Your task to perform on an android device: Clear all items from cart on walmart. Add lg ultragear to the cart on walmart, then select checkout. Image 0: 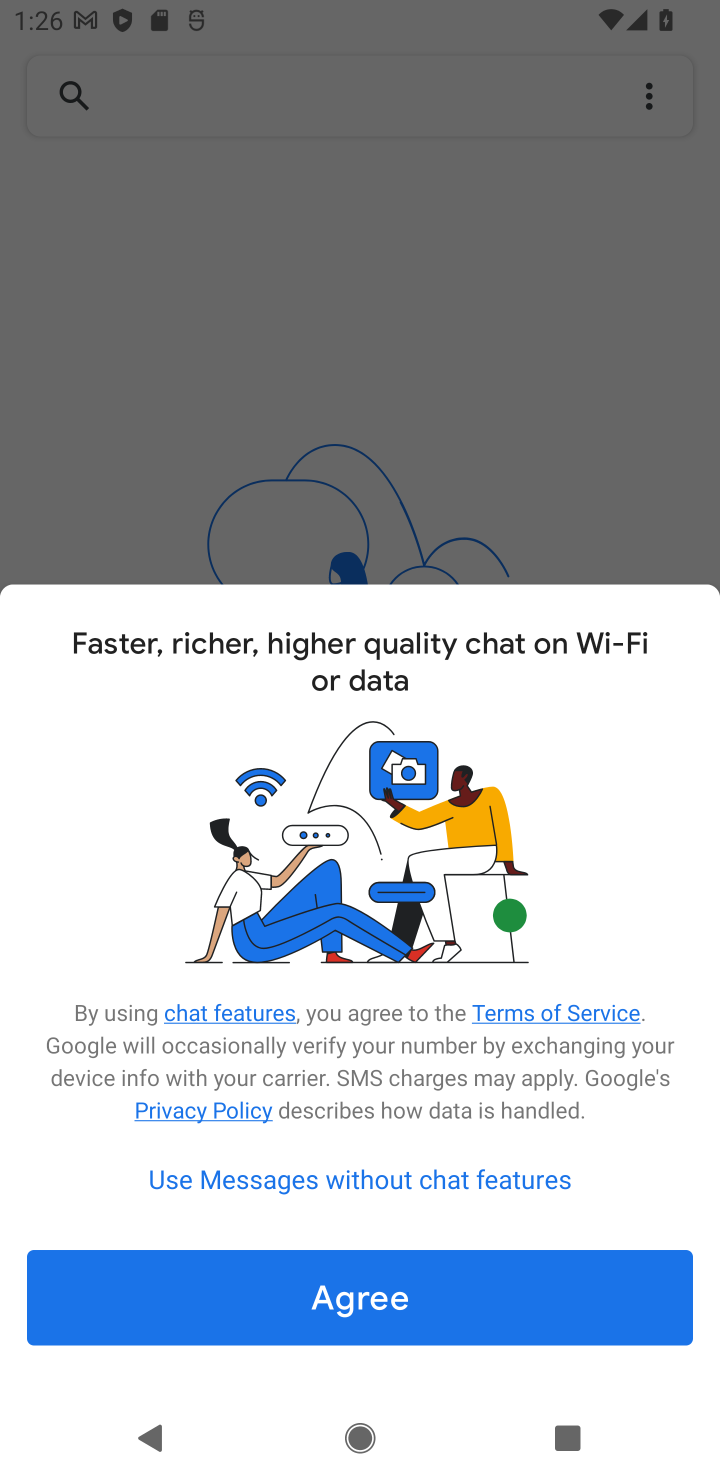
Step 0: press home button
Your task to perform on an android device: Clear all items from cart on walmart. Add lg ultragear to the cart on walmart, then select checkout. Image 1: 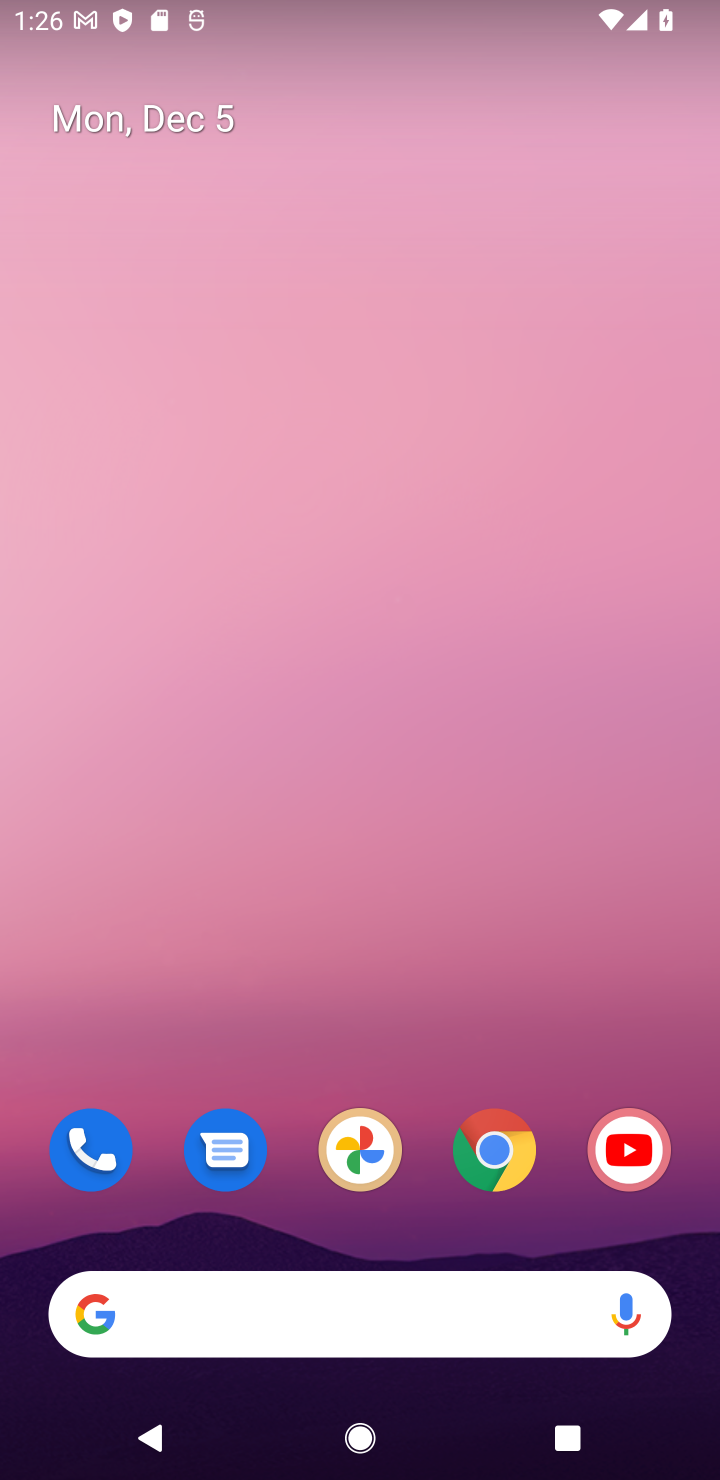
Step 1: click (481, 1146)
Your task to perform on an android device: Clear all items from cart on walmart. Add lg ultragear to the cart on walmart, then select checkout. Image 2: 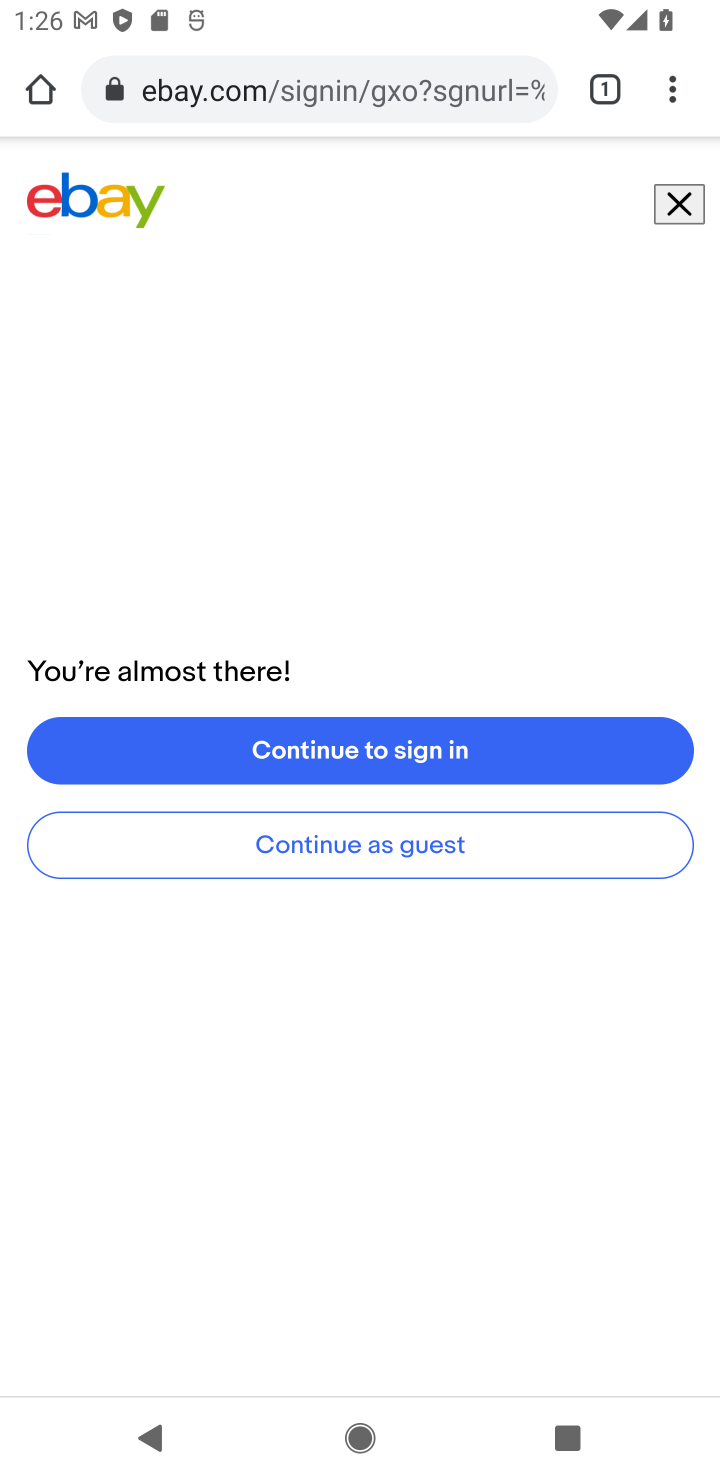
Step 2: click (431, 86)
Your task to perform on an android device: Clear all items from cart on walmart. Add lg ultragear to the cart on walmart, then select checkout. Image 3: 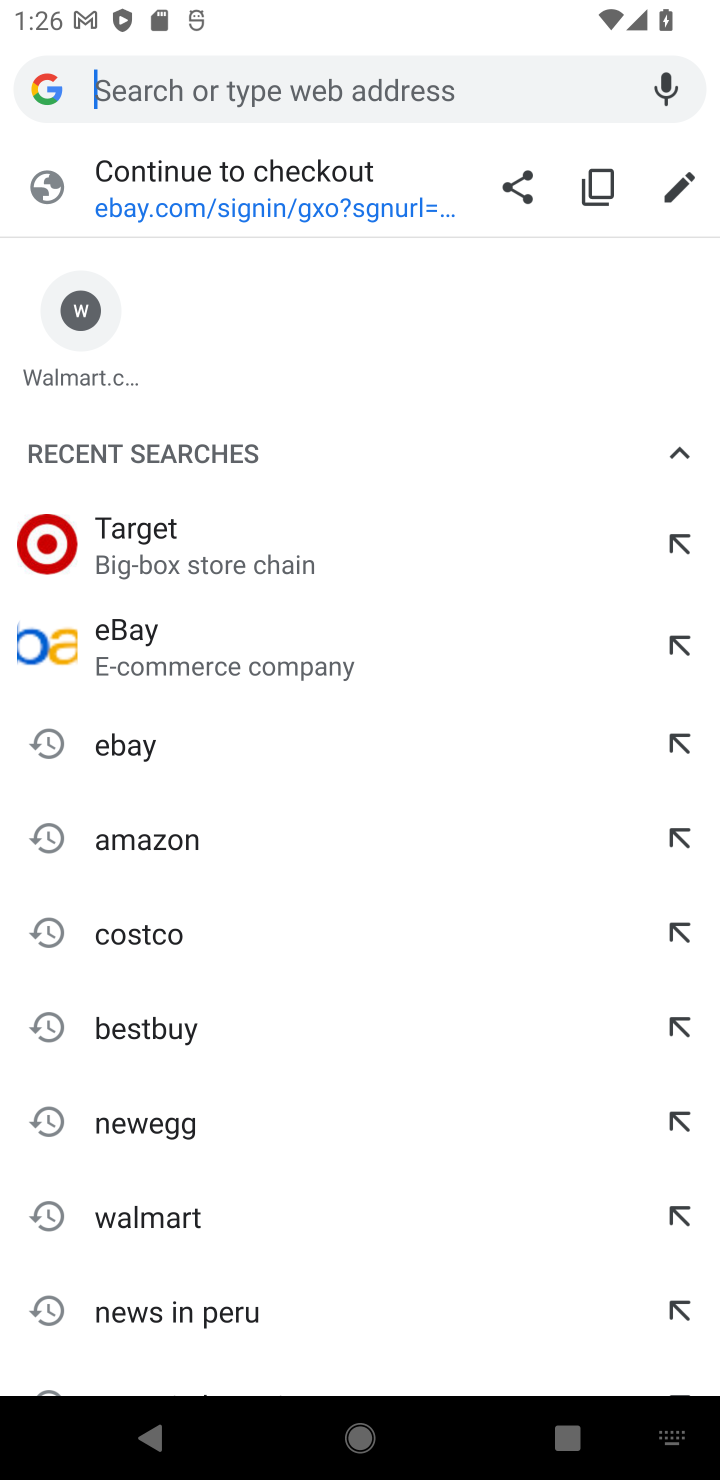
Step 3: drag from (387, 984) to (390, 688)
Your task to perform on an android device: Clear all items from cart on walmart. Add lg ultragear to the cart on walmart, then select checkout. Image 4: 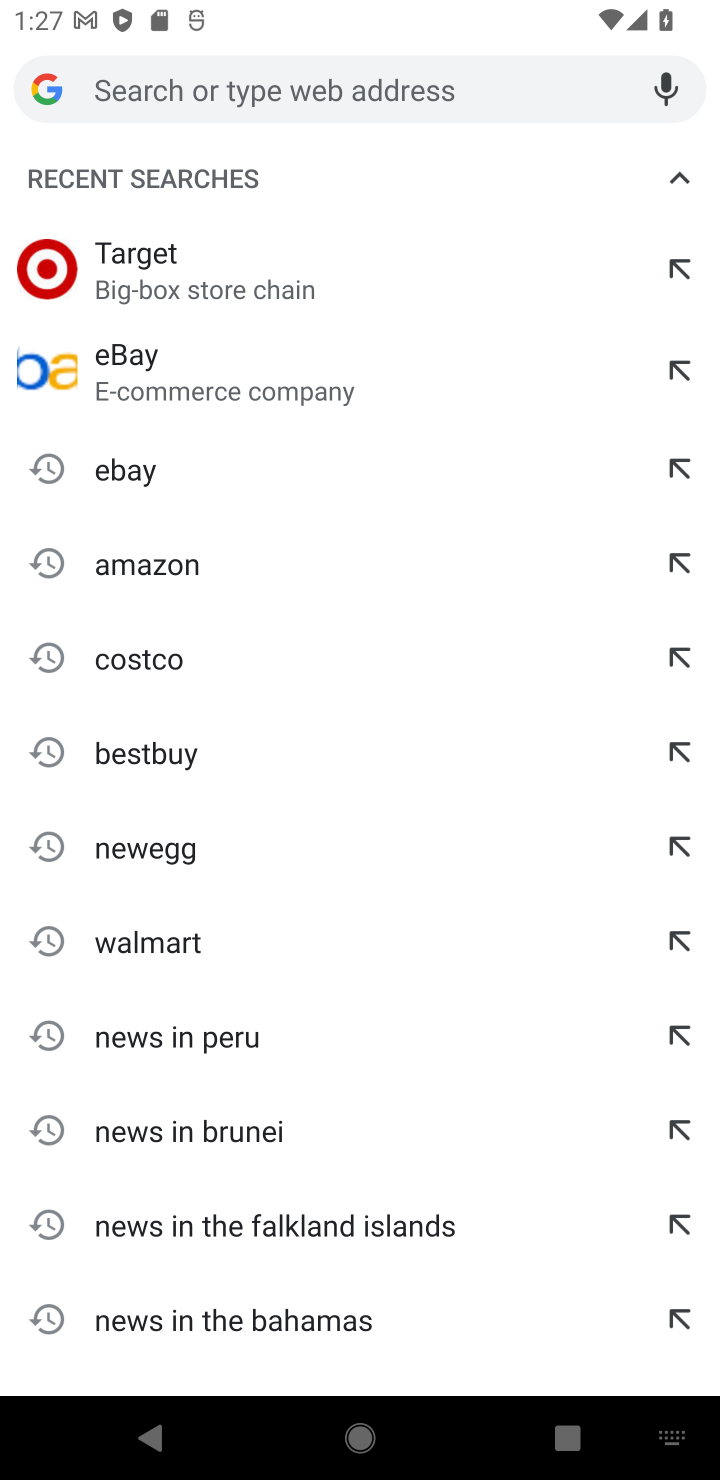
Step 4: click (139, 926)
Your task to perform on an android device: Clear all items from cart on walmart. Add lg ultragear to the cart on walmart, then select checkout. Image 5: 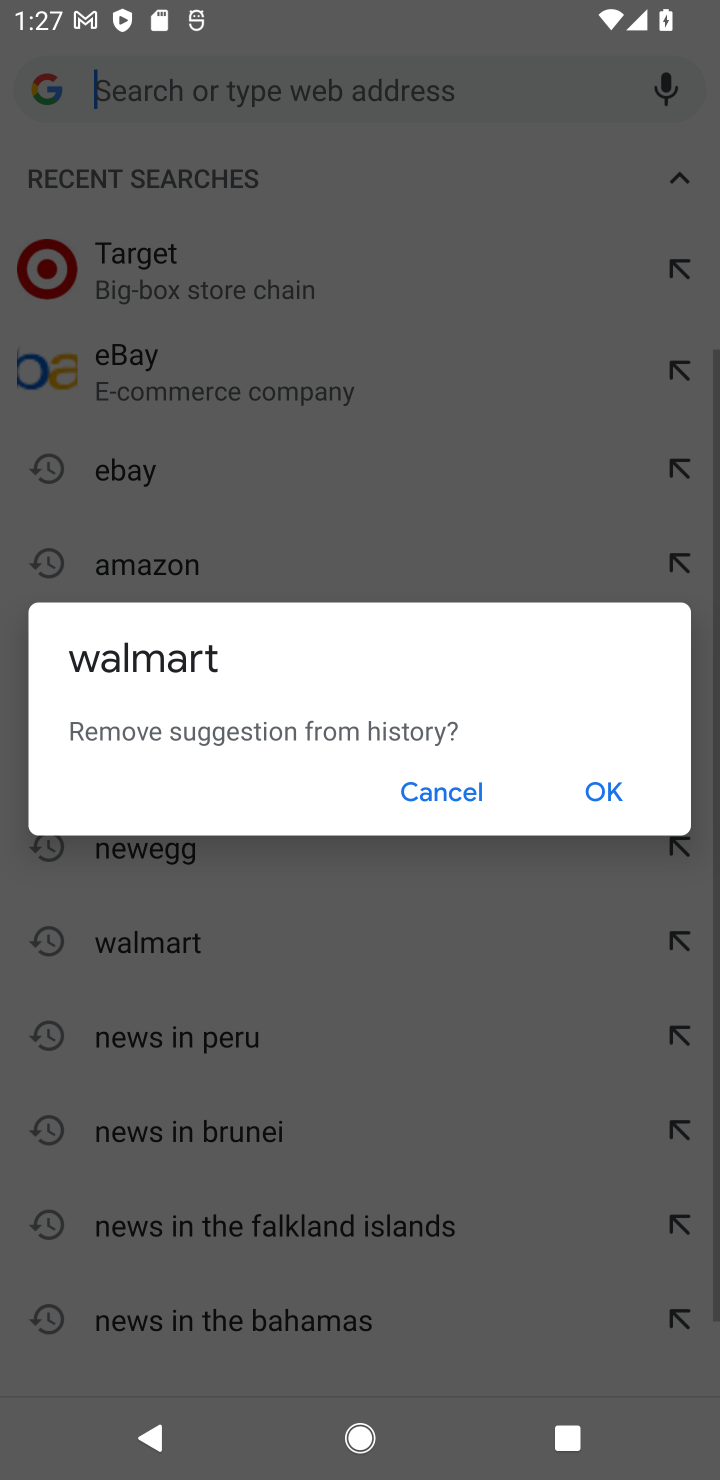
Step 5: click (617, 784)
Your task to perform on an android device: Clear all items from cart on walmart. Add lg ultragear to the cart on walmart, then select checkout. Image 6: 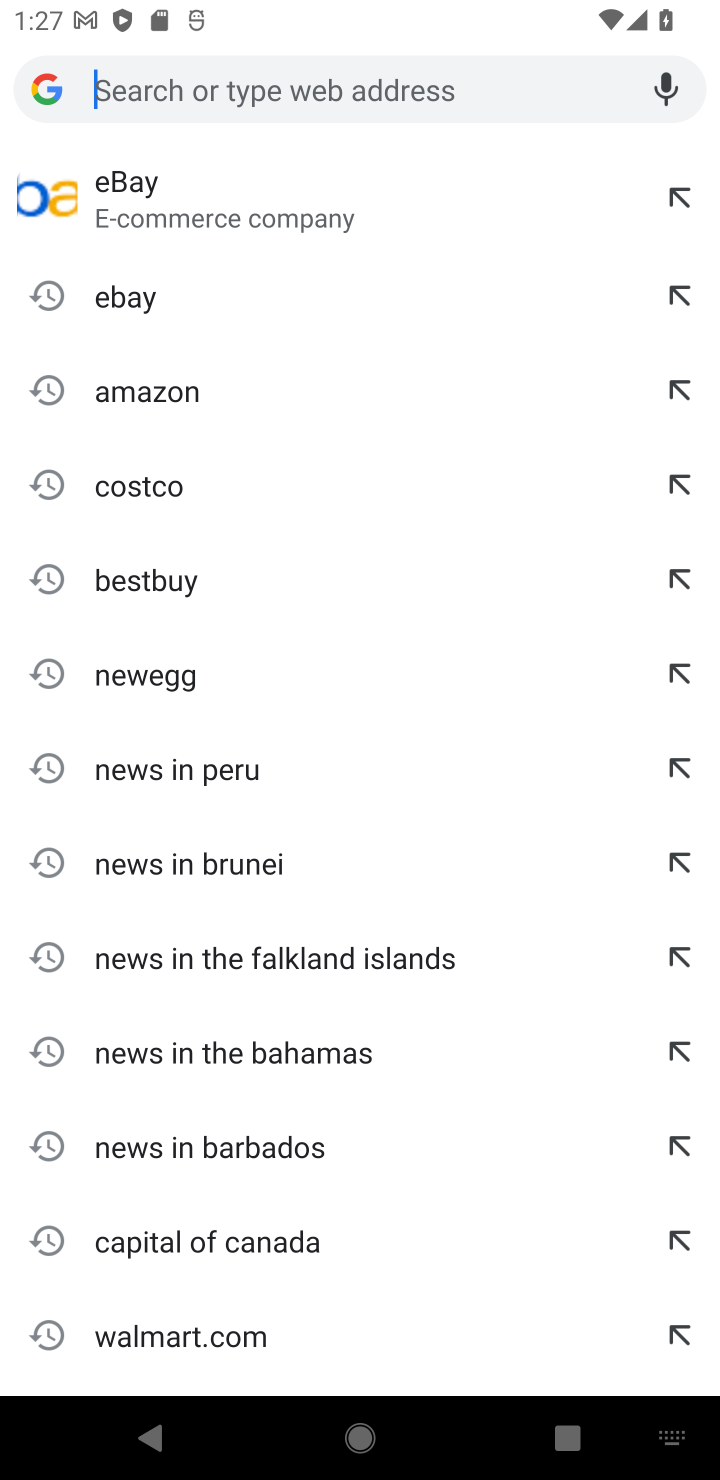
Step 6: type "walmart"
Your task to perform on an android device: Clear all items from cart on walmart. Add lg ultragear to the cart on walmart, then select checkout. Image 7: 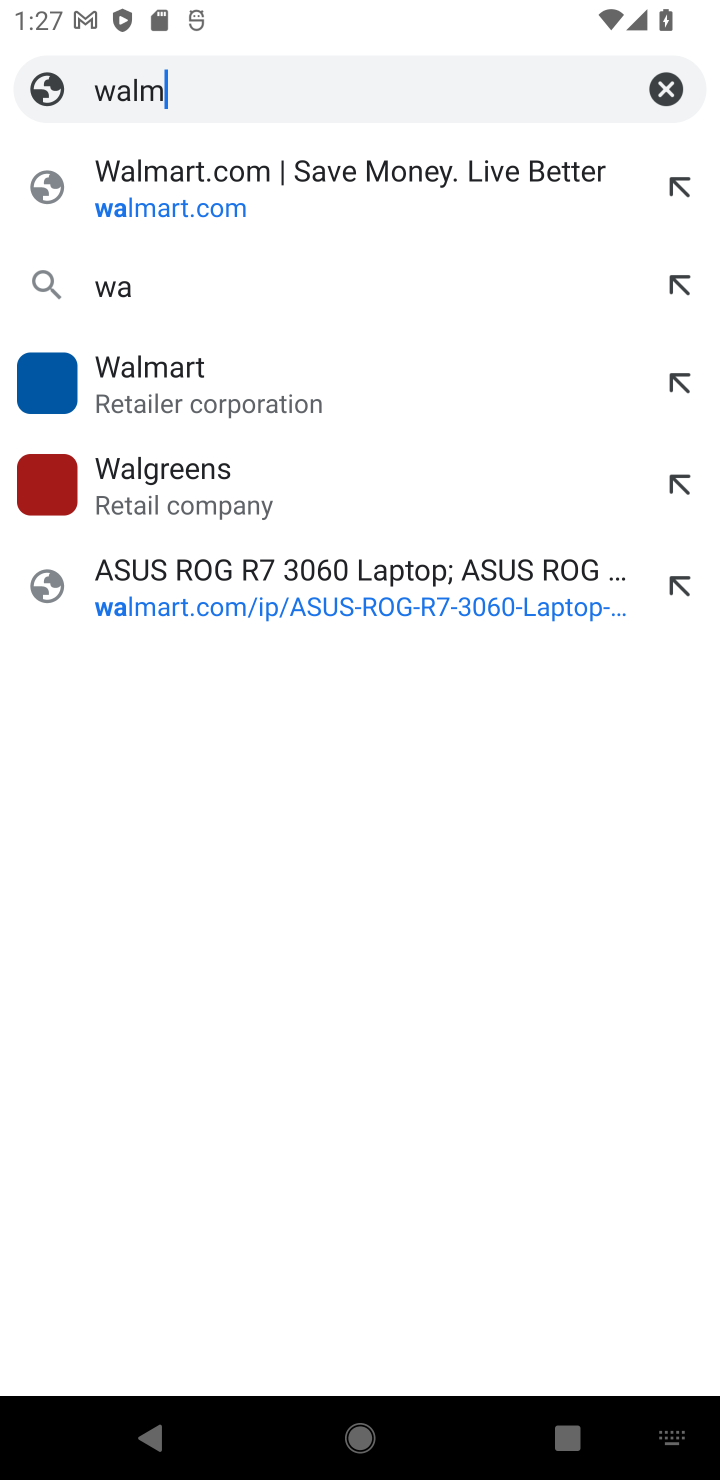
Step 7: press enter
Your task to perform on an android device: Clear all items from cart on walmart. Add lg ultragear to the cart on walmart, then select checkout. Image 8: 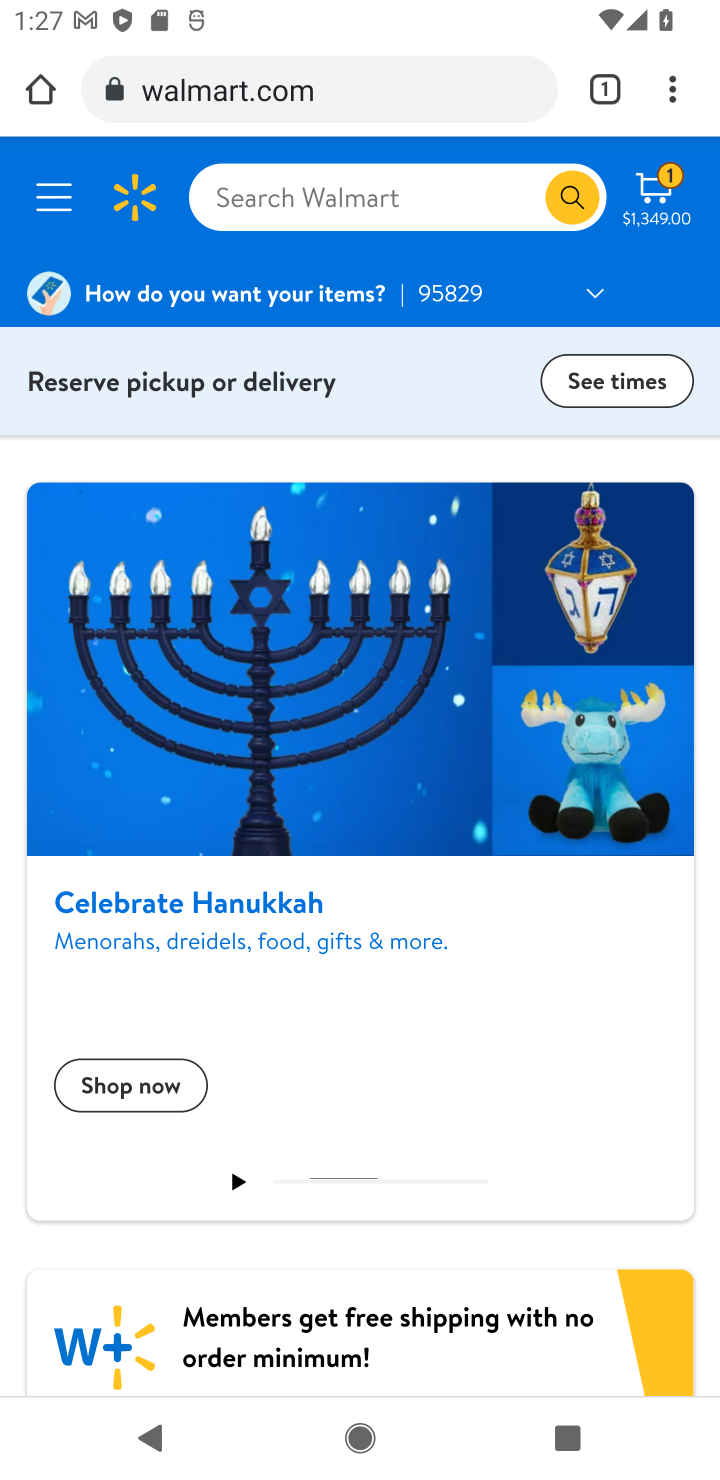
Step 8: click (655, 213)
Your task to perform on an android device: Clear all items from cart on walmart. Add lg ultragear to the cart on walmart, then select checkout. Image 9: 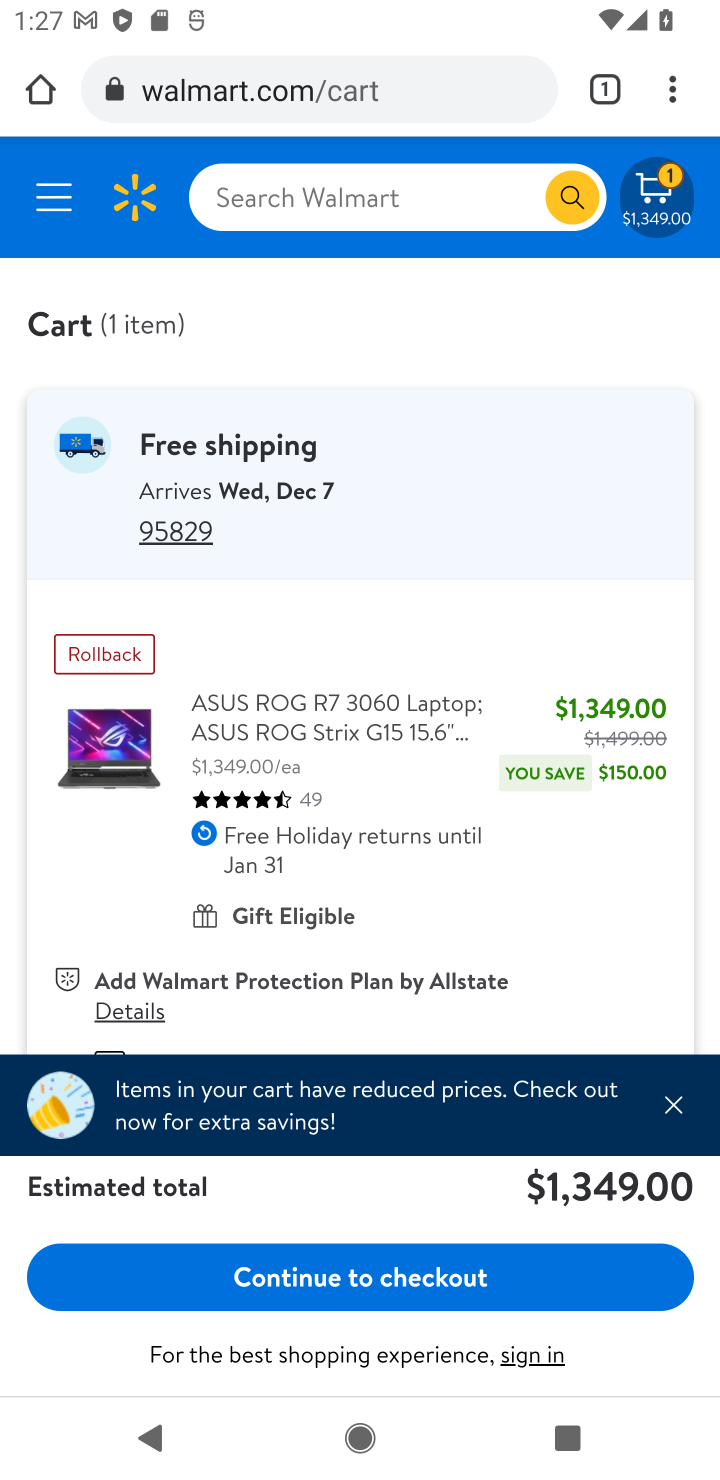
Step 9: drag from (577, 883) to (534, 527)
Your task to perform on an android device: Clear all items from cart on walmart. Add lg ultragear to the cart on walmart, then select checkout. Image 10: 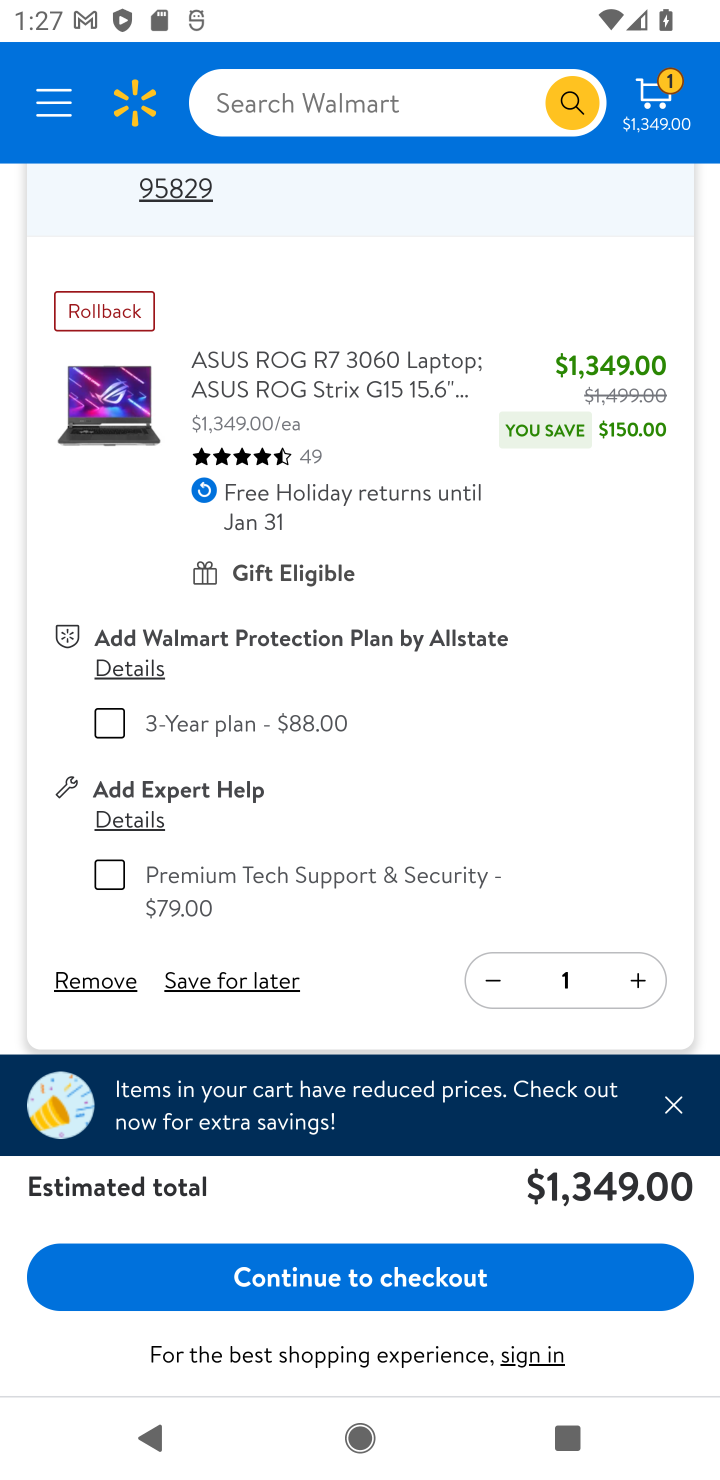
Step 10: click (110, 982)
Your task to perform on an android device: Clear all items from cart on walmart. Add lg ultragear to the cart on walmart, then select checkout. Image 11: 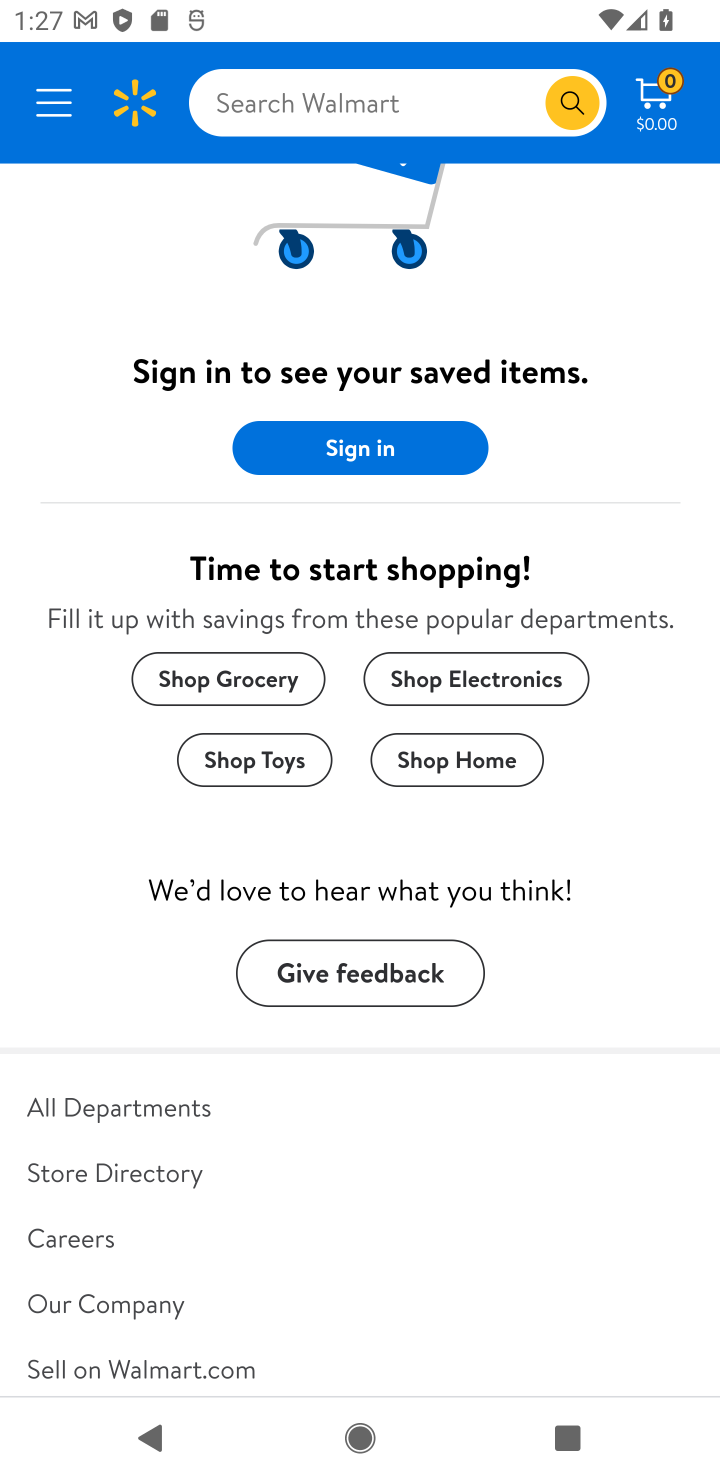
Step 11: click (417, 93)
Your task to perform on an android device: Clear all items from cart on walmart. Add lg ultragear to the cart on walmart, then select checkout. Image 12: 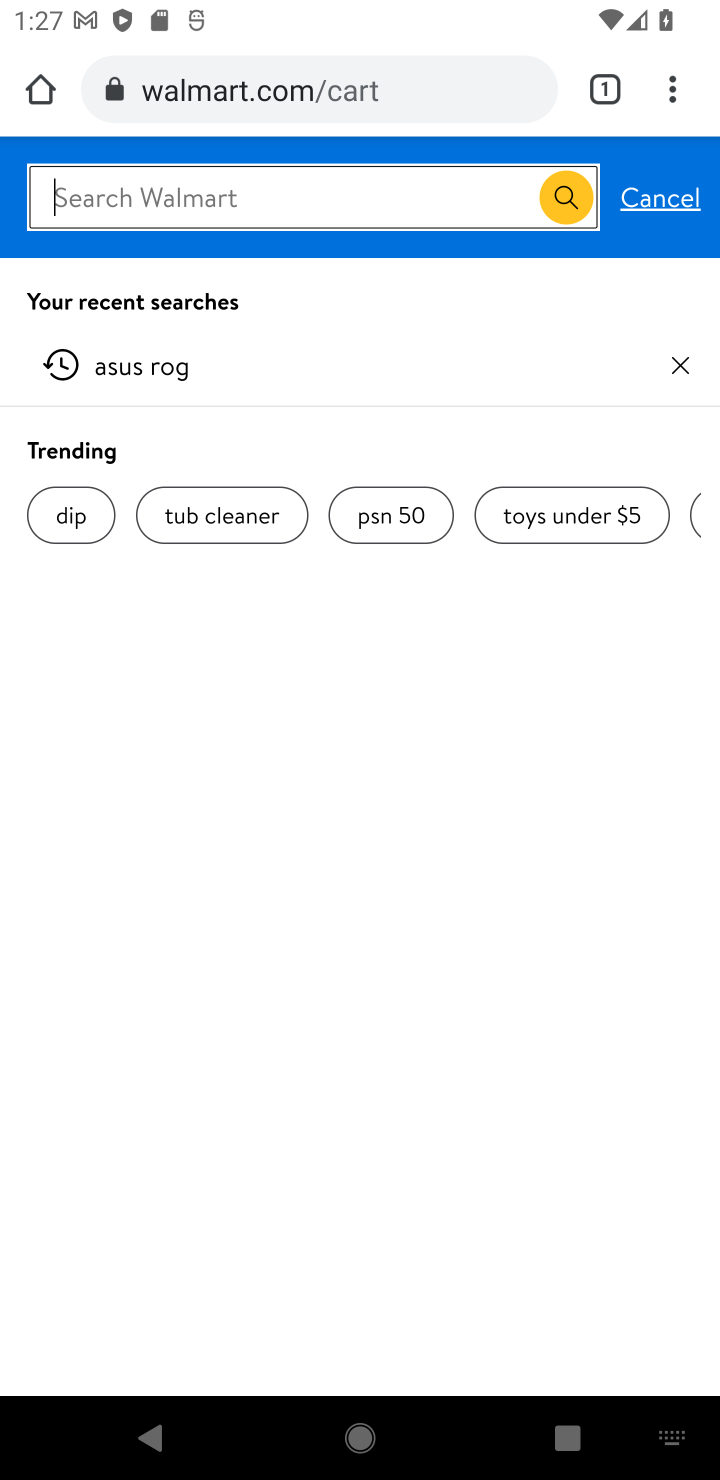
Step 12: type "lg ultragear"
Your task to perform on an android device: Clear all items from cart on walmart. Add lg ultragear to the cart on walmart, then select checkout. Image 13: 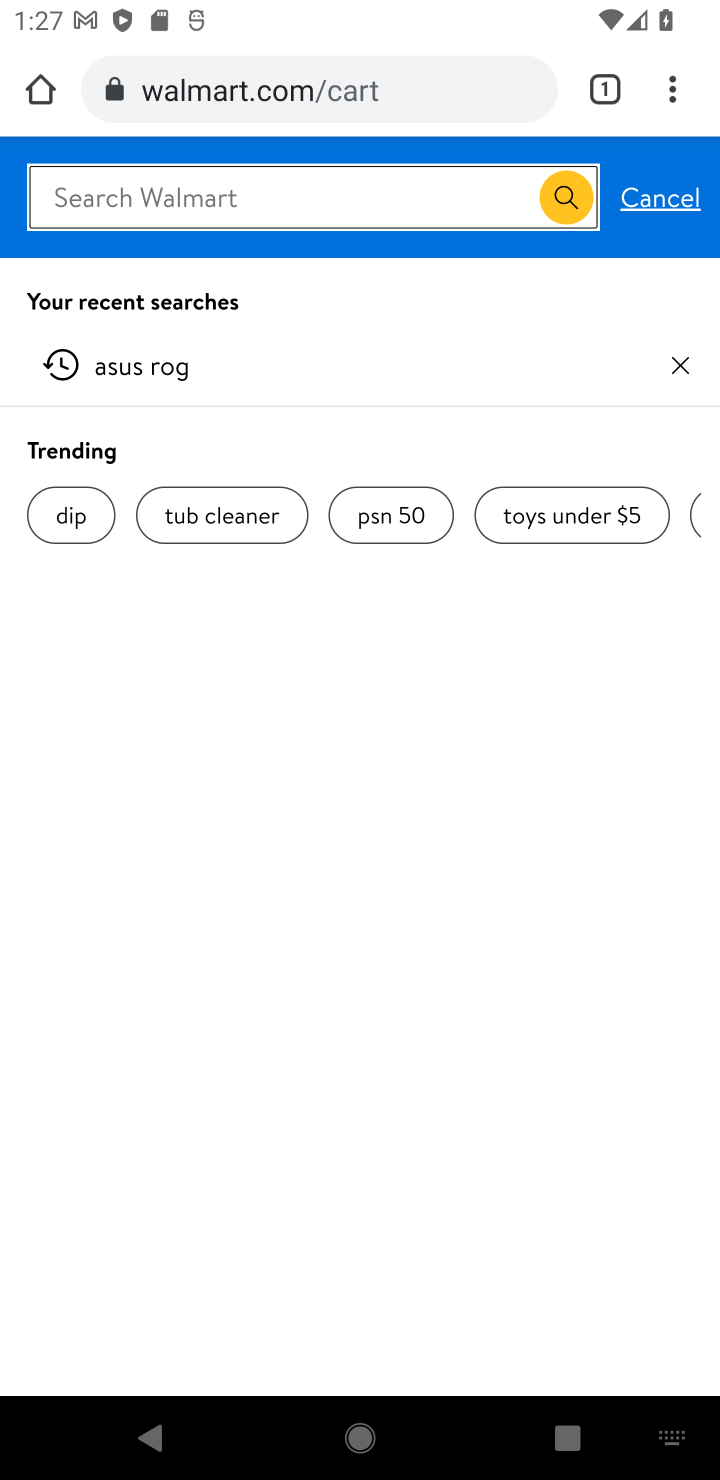
Step 13: press enter
Your task to perform on an android device: Clear all items from cart on walmart. Add lg ultragear to the cart on walmart, then select checkout. Image 14: 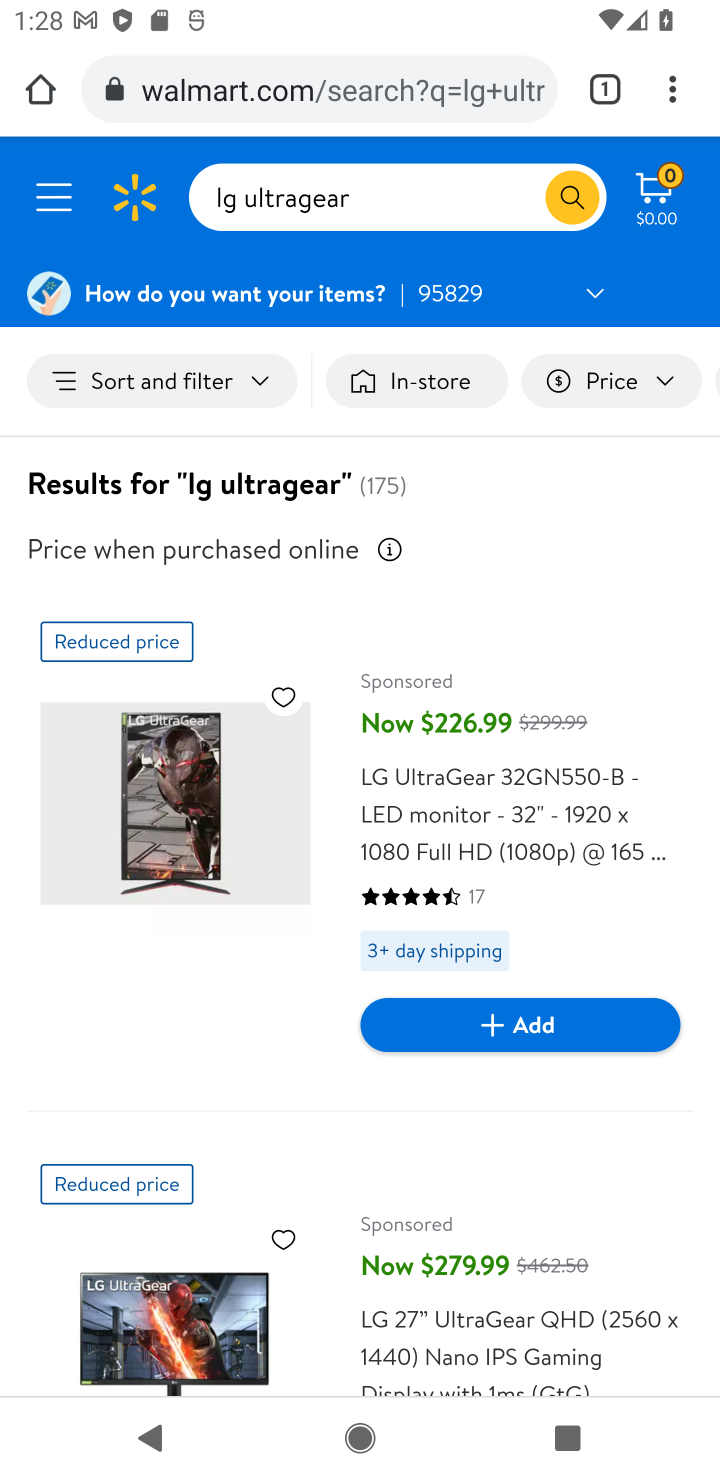
Step 14: click (175, 801)
Your task to perform on an android device: Clear all items from cart on walmart. Add lg ultragear to the cart on walmart, then select checkout. Image 15: 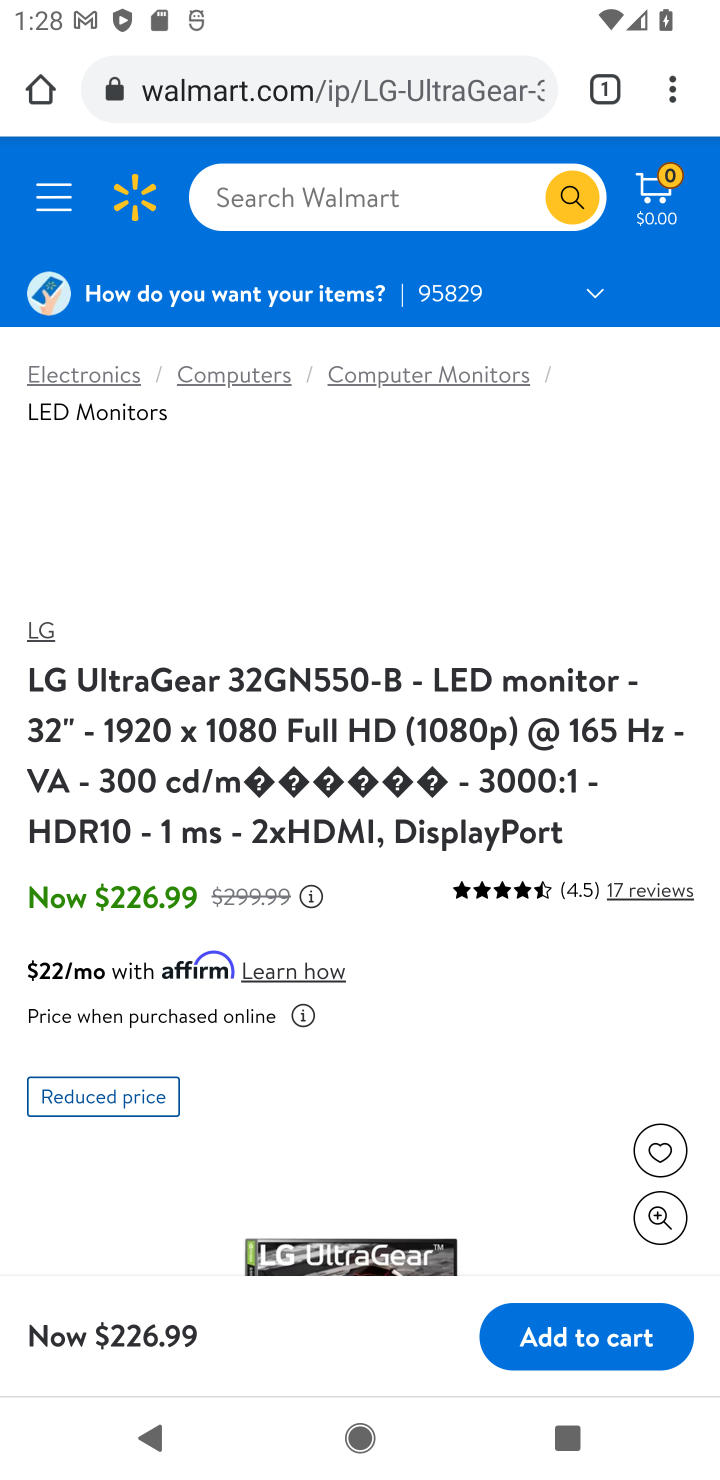
Step 15: drag from (556, 974) to (562, 561)
Your task to perform on an android device: Clear all items from cart on walmart. Add lg ultragear to the cart on walmart, then select checkout. Image 16: 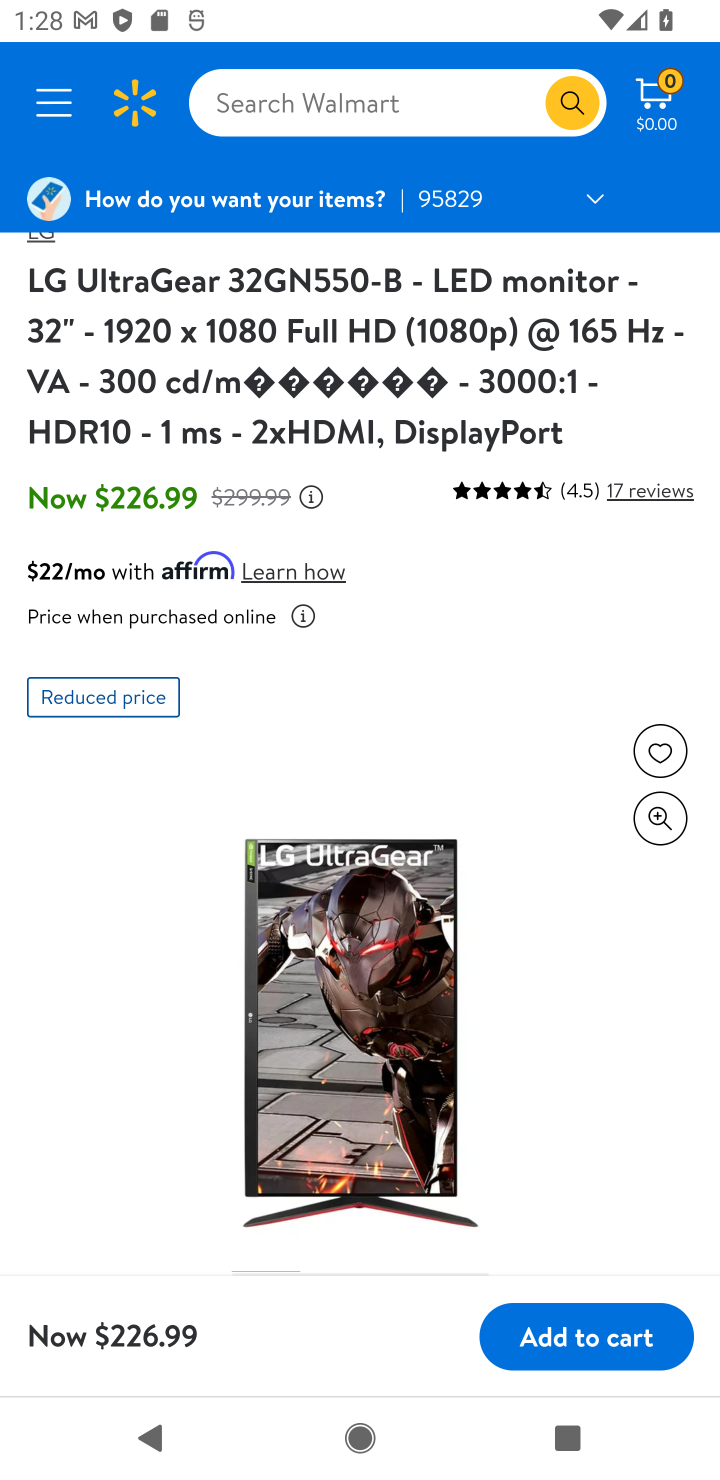
Step 16: click (588, 1335)
Your task to perform on an android device: Clear all items from cart on walmart. Add lg ultragear to the cart on walmart, then select checkout. Image 17: 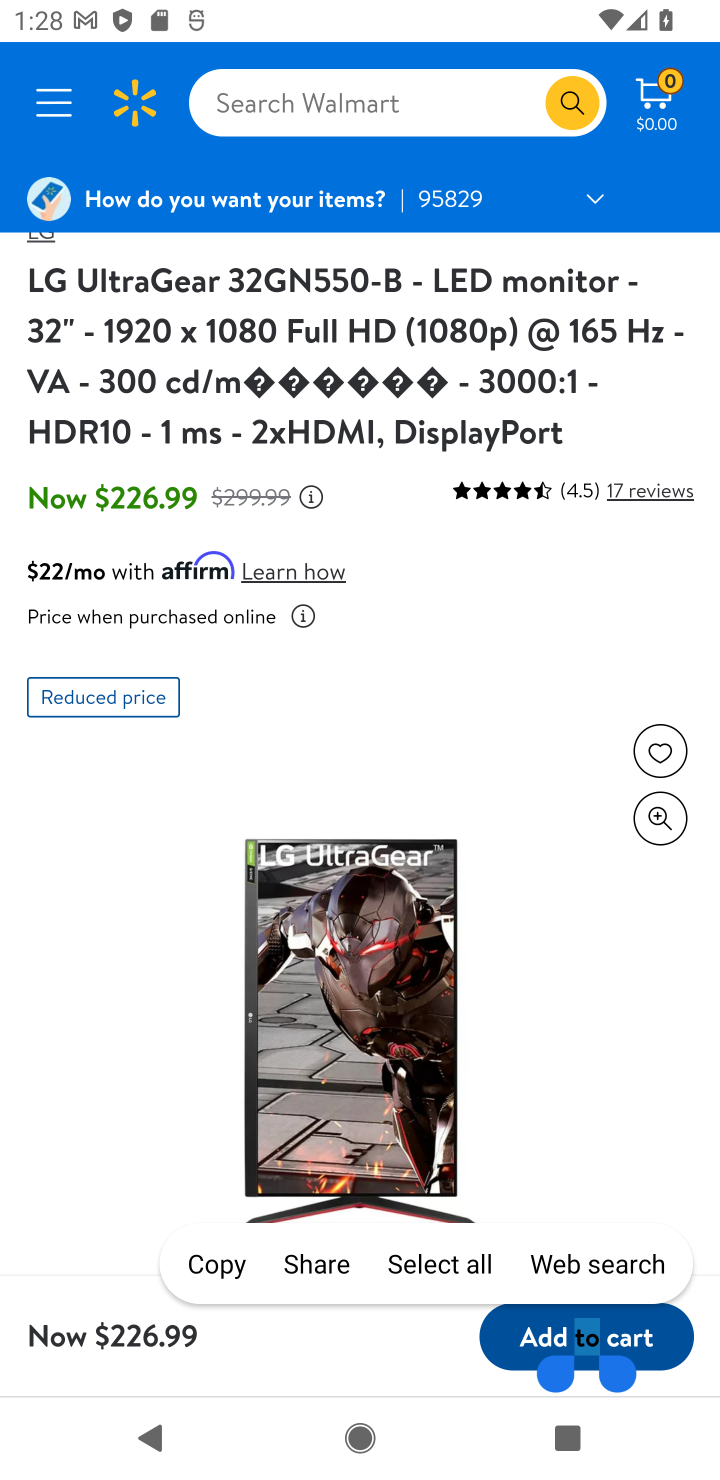
Step 17: click (532, 1337)
Your task to perform on an android device: Clear all items from cart on walmart. Add lg ultragear to the cart on walmart, then select checkout. Image 18: 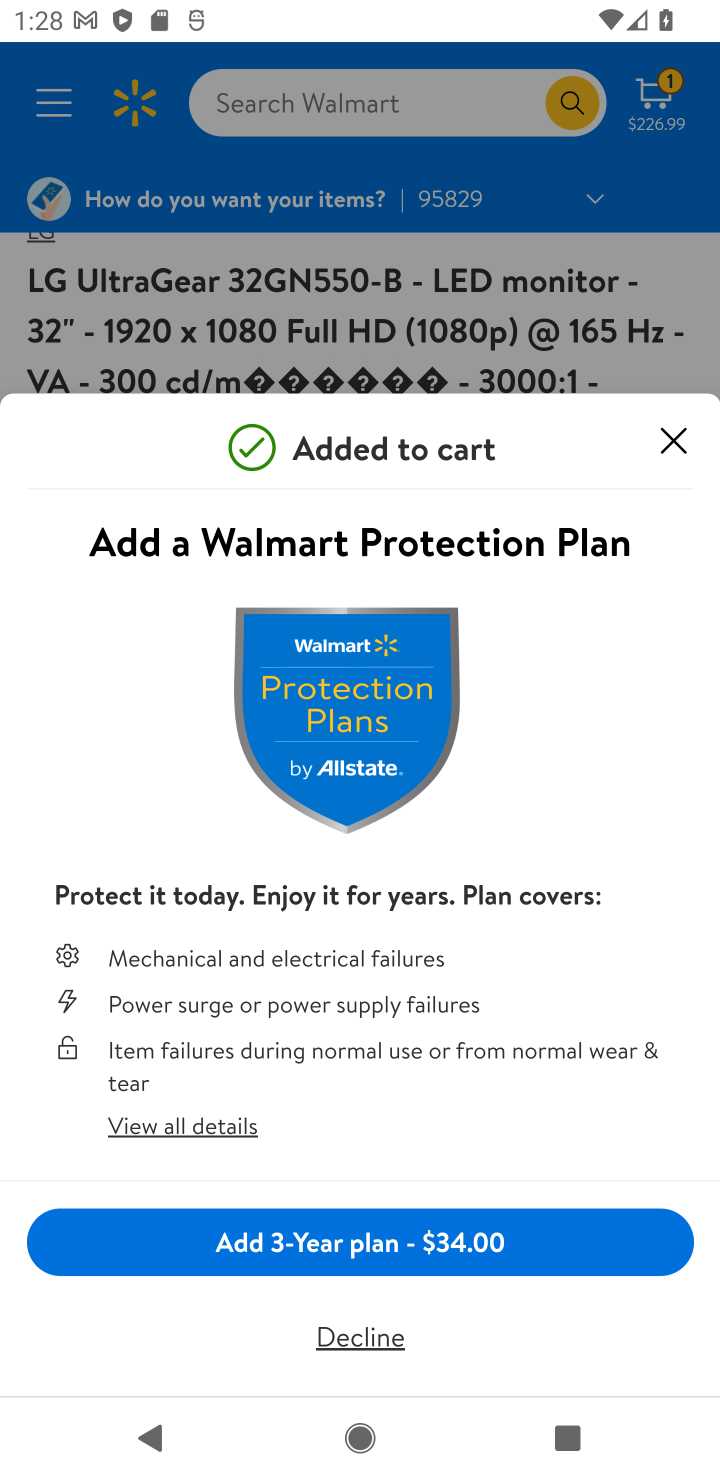
Step 18: click (684, 440)
Your task to perform on an android device: Clear all items from cart on walmart. Add lg ultragear to the cart on walmart, then select checkout. Image 19: 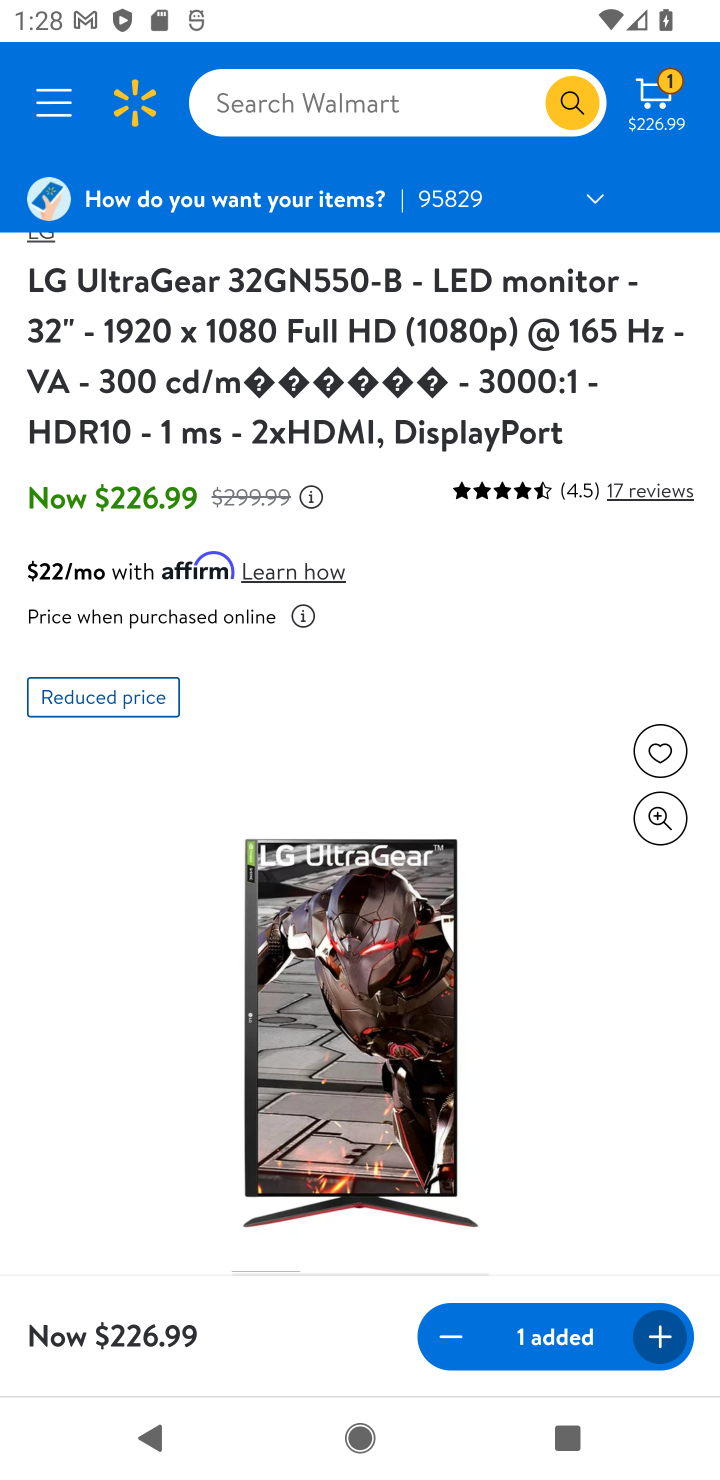
Step 19: click (662, 109)
Your task to perform on an android device: Clear all items from cart on walmart. Add lg ultragear to the cart on walmart, then select checkout. Image 20: 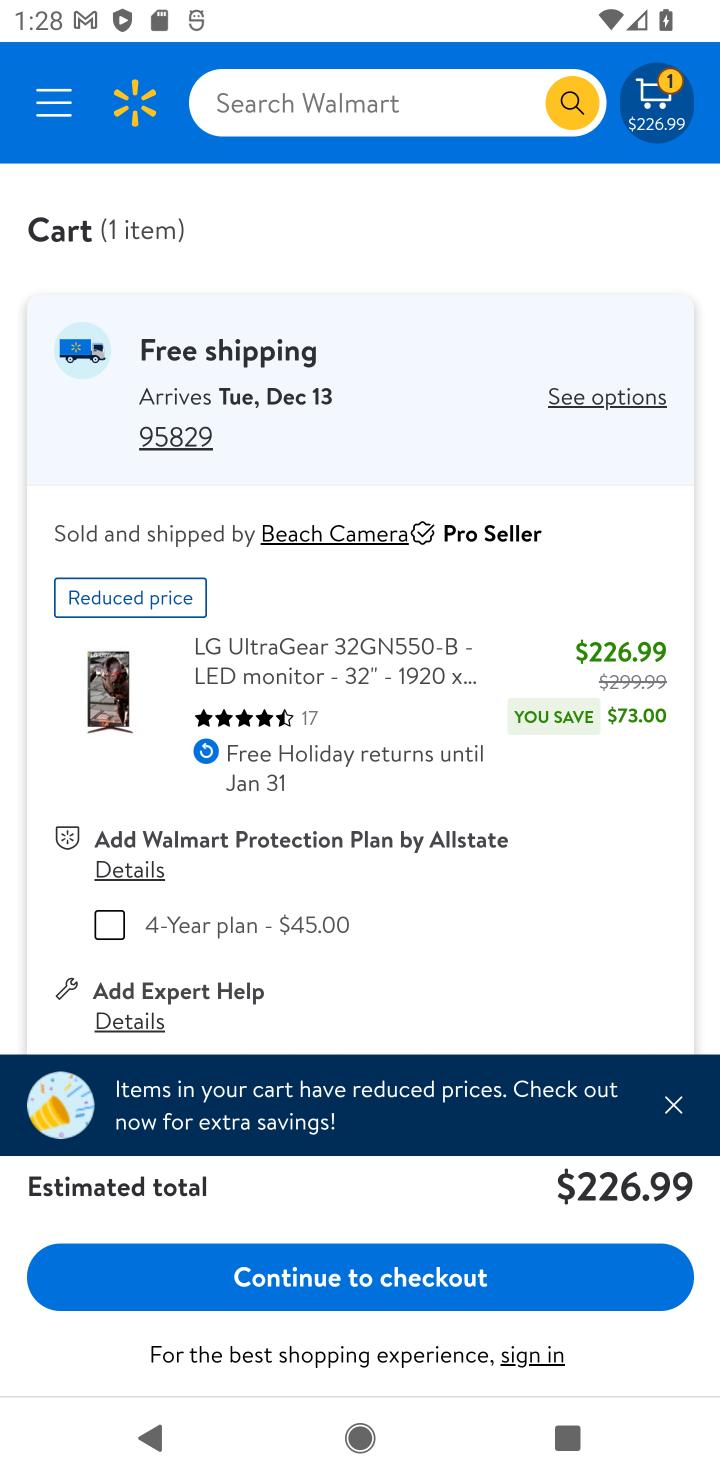
Step 20: click (383, 1264)
Your task to perform on an android device: Clear all items from cart on walmart. Add lg ultragear to the cart on walmart, then select checkout. Image 21: 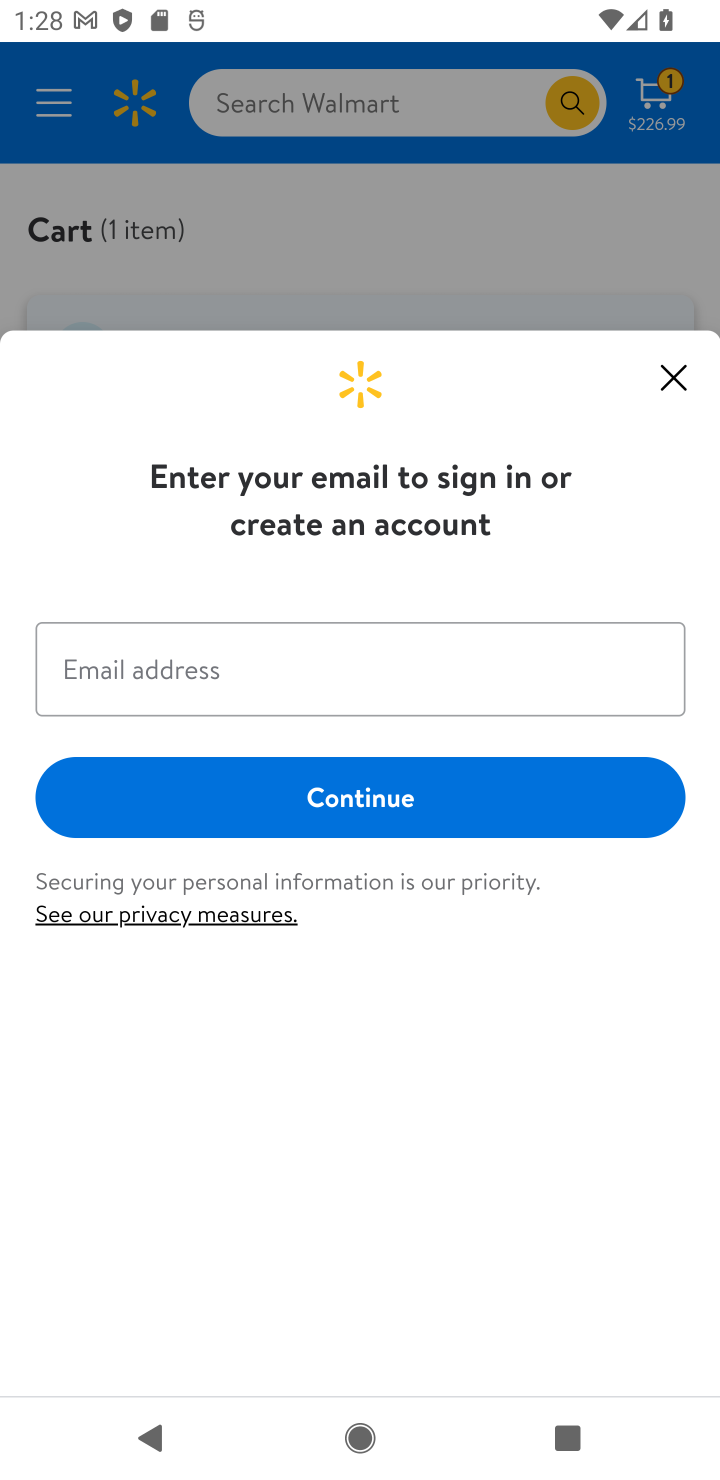
Step 21: task complete